Your task to perform on an android device: Open the map Image 0: 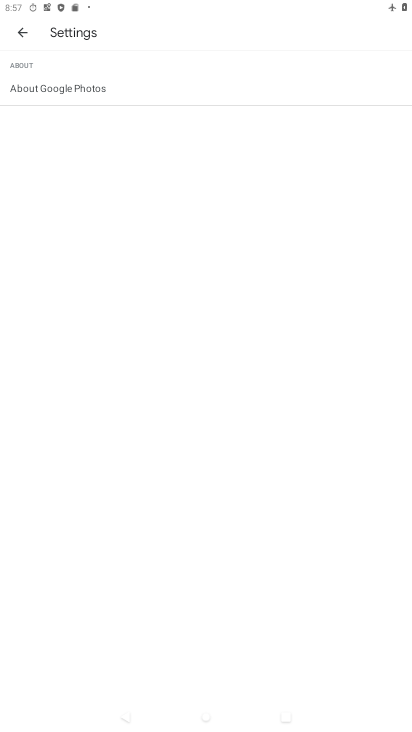
Step 0: press home button
Your task to perform on an android device: Open the map Image 1: 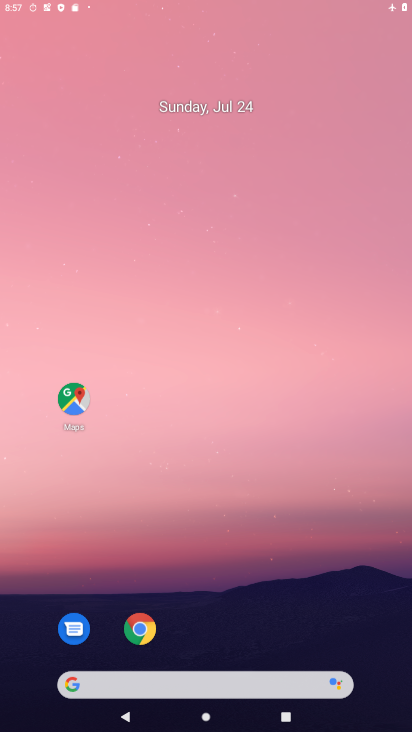
Step 1: press home button
Your task to perform on an android device: Open the map Image 2: 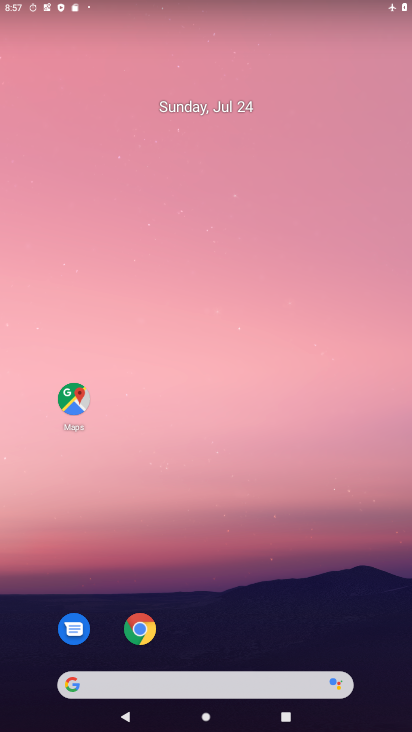
Step 2: drag from (198, 694) to (302, 137)
Your task to perform on an android device: Open the map Image 3: 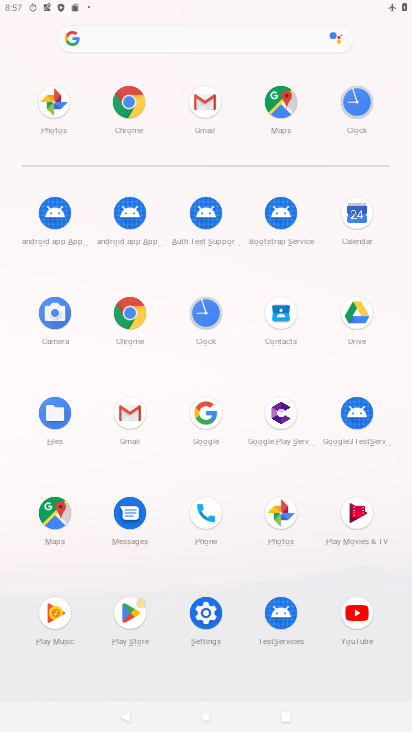
Step 3: click (63, 523)
Your task to perform on an android device: Open the map Image 4: 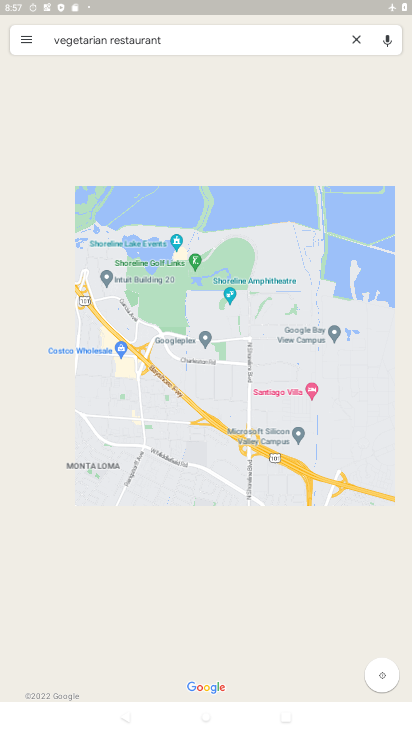
Step 4: task complete